Your task to perform on an android device: Go to Android settings Image 0: 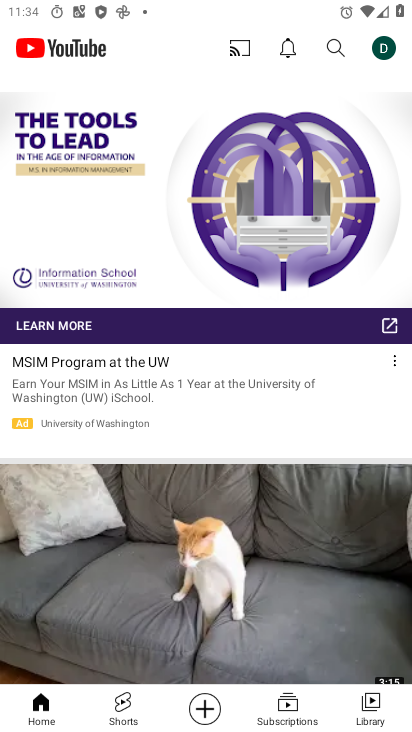
Step 0: press home button
Your task to perform on an android device: Go to Android settings Image 1: 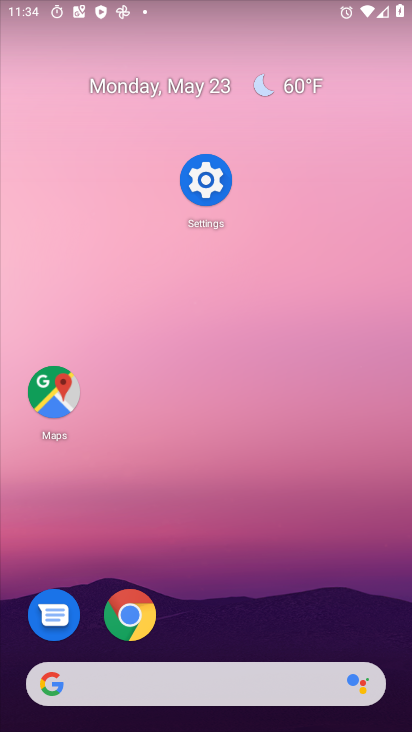
Step 1: click (210, 175)
Your task to perform on an android device: Go to Android settings Image 2: 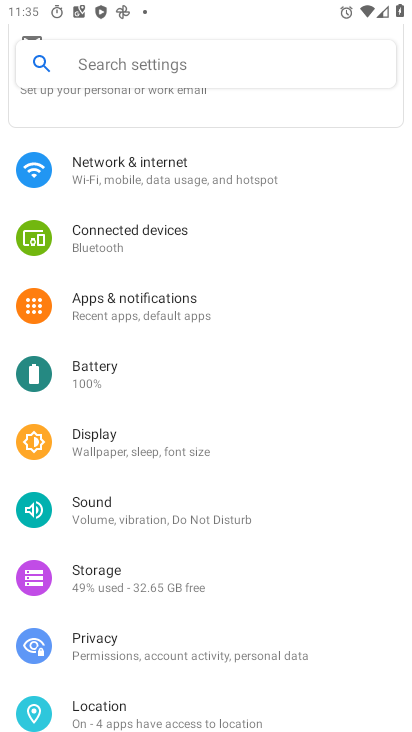
Step 2: task complete